Your task to perform on an android device: Is it going to rain tomorrow? Image 0: 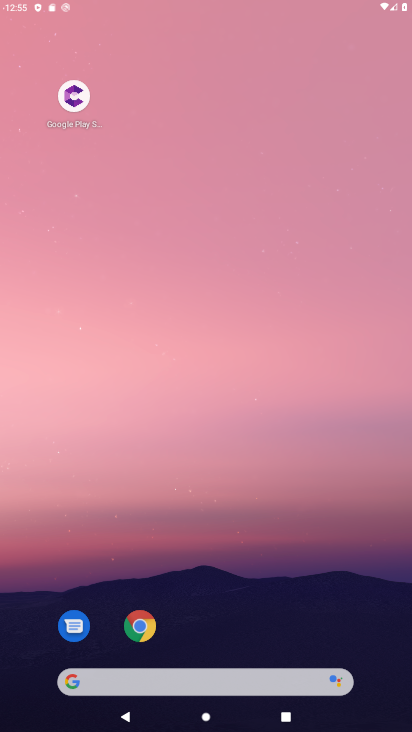
Step 0: press home button
Your task to perform on an android device: Is it going to rain tomorrow? Image 1: 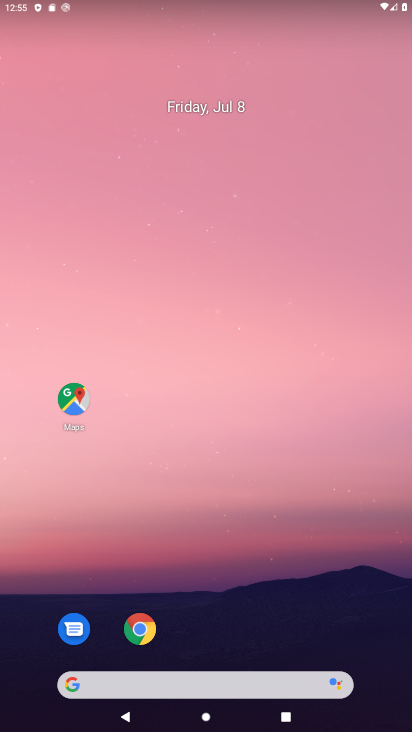
Step 1: click (62, 7)
Your task to perform on an android device: Is it going to rain tomorrow? Image 2: 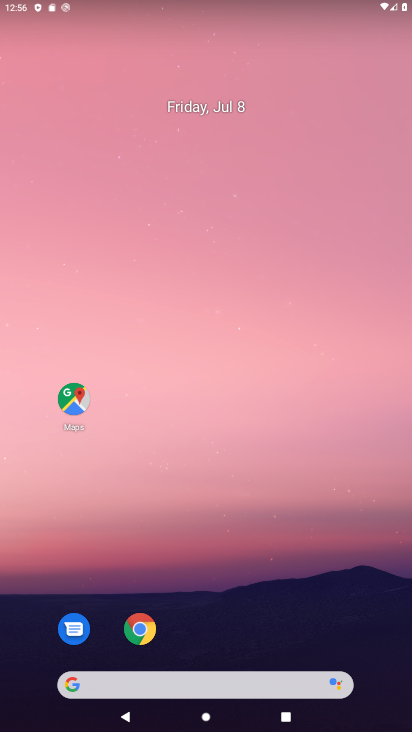
Step 2: click (133, 49)
Your task to perform on an android device: Is it going to rain tomorrow? Image 3: 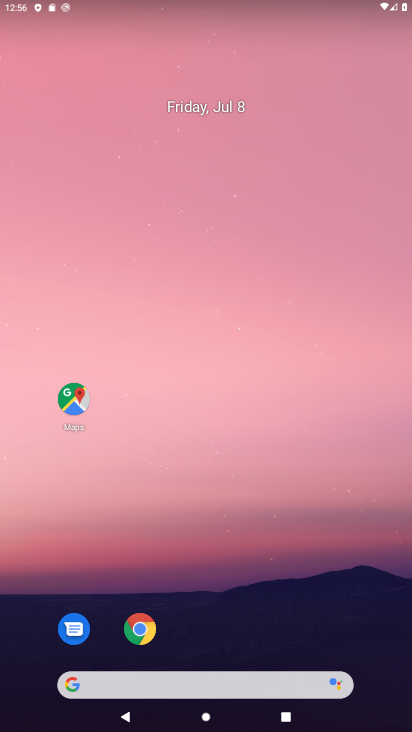
Step 3: drag from (245, 627) to (102, 16)
Your task to perform on an android device: Is it going to rain tomorrow? Image 4: 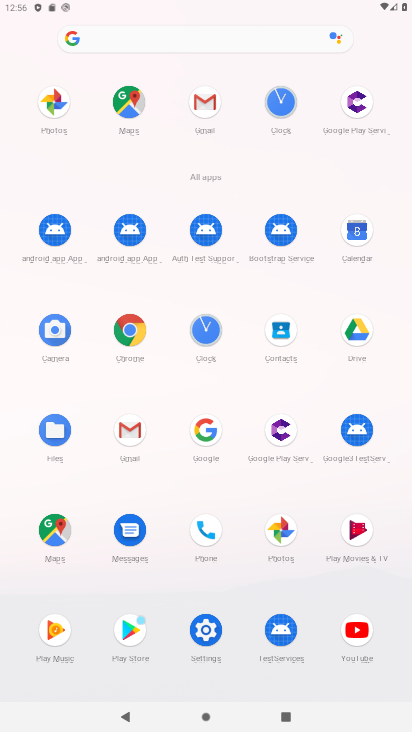
Step 4: drag from (191, 494) to (141, 125)
Your task to perform on an android device: Is it going to rain tomorrow? Image 5: 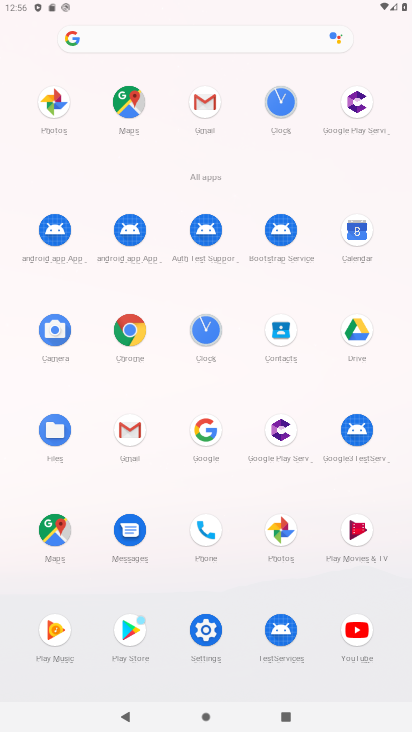
Step 5: drag from (180, 342) to (97, 38)
Your task to perform on an android device: Is it going to rain tomorrow? Image 6: 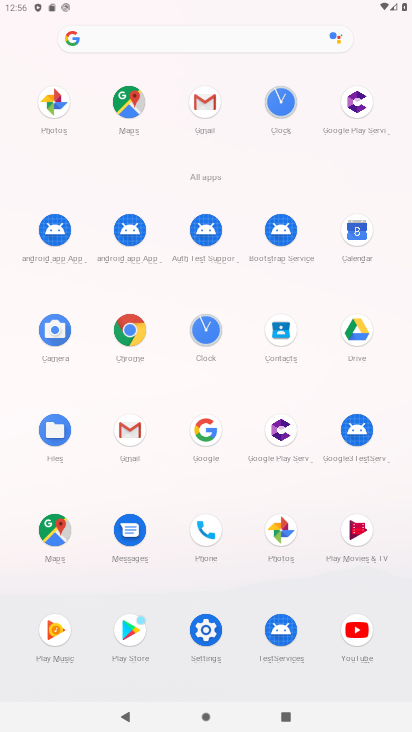
Step 6: drag from (205, 426) to (140, 92)
Your task to perform on an android device: Is it going to rain tomorrow? Image 7: 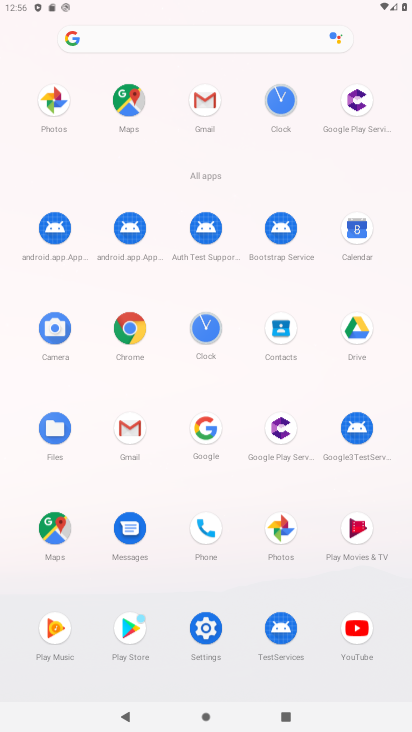
Step 7: drag from (234, 419) to (66, 3)
Your task to perform on an android device: Is it going to rain tomorrow? Image 8: 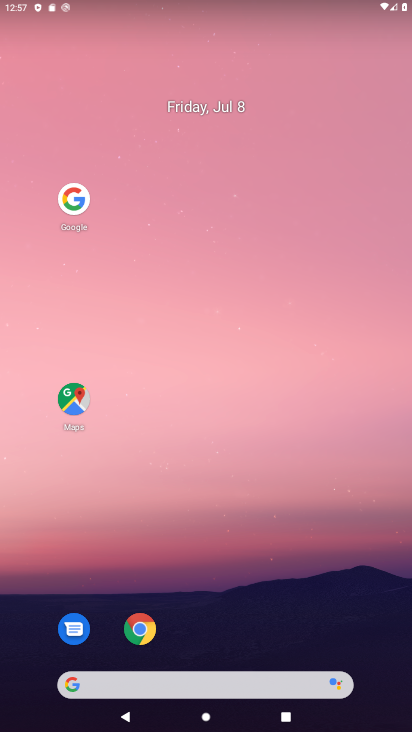
Step 8: click (120, 333)
Your task to perform on an android device: Is it going to rain tomorrow? Image 9: 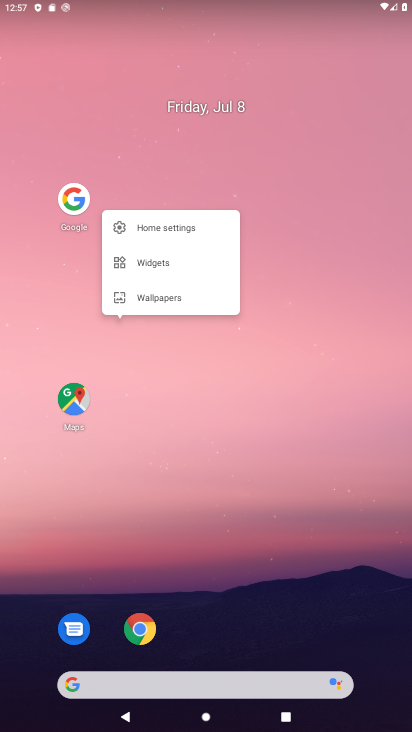
Step 9: click (117, 345)
Your task to perform on an android device: Is it going to rain tomorrow? Image 10: 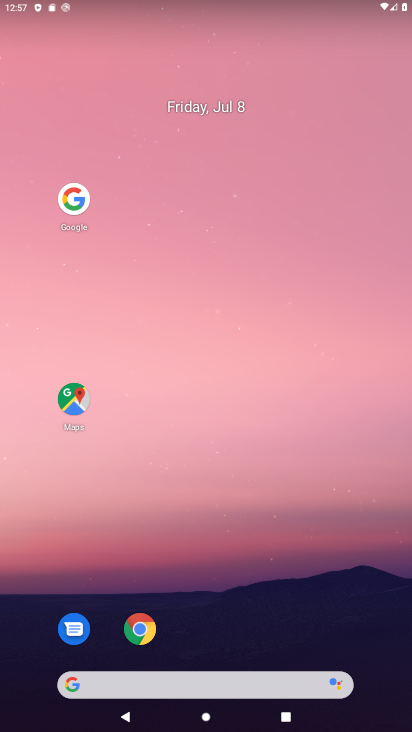
Step 10: click (125, 346)
Your task to perform on an android device: Is it going to rain tomorrow? Image 11: 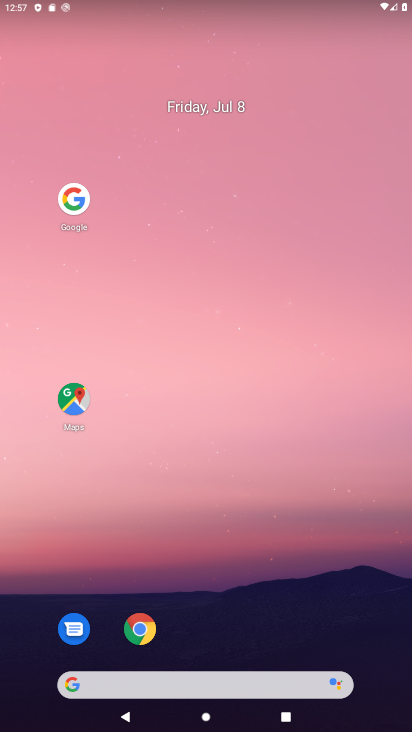
Step 11: click (115, 341)
Your task to perform on an android device: Is it going to rain tomorrow? Image 12: 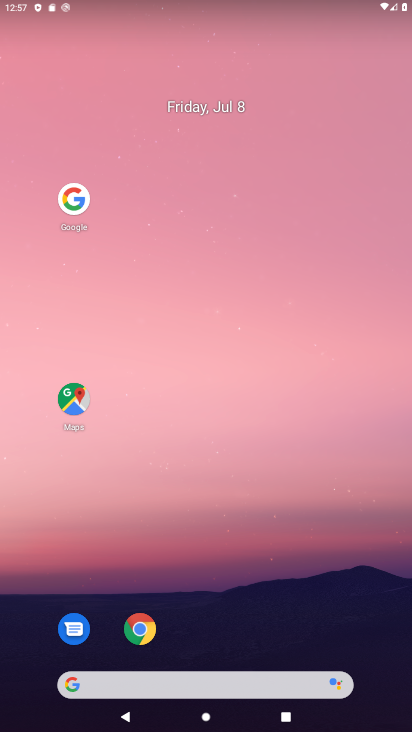
Step 12: click (133, 338)
Your task to perform on an android device: Is it going to rain tomorrow? Image 13: 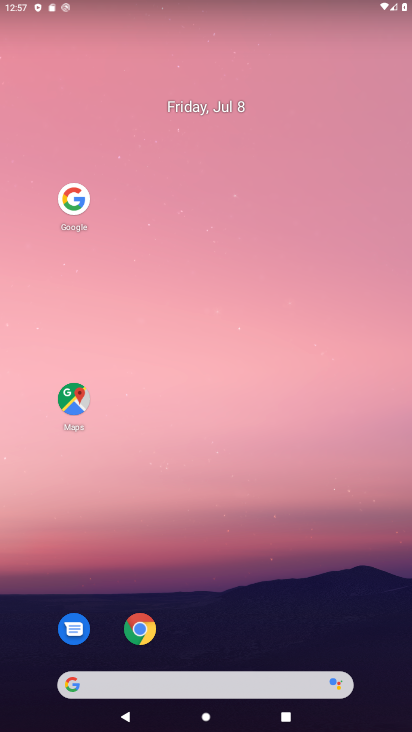
Step 13: drag from (138, 318) to (124, 279)
Your task to perform on an android device: Is it going to rain tomorrow? Image 14: 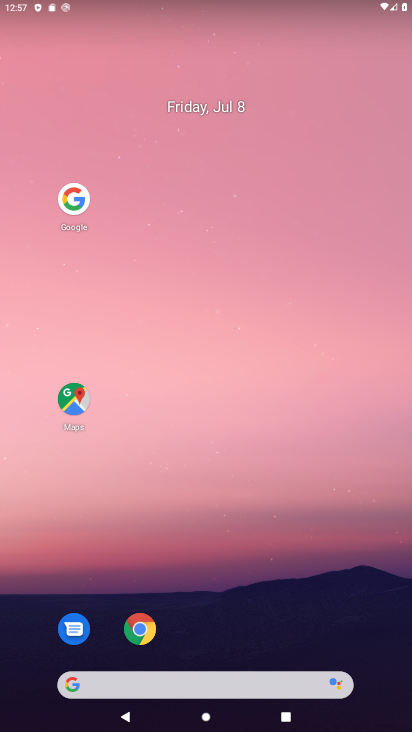
Step 14: click (124, 279)
Your task to perform on an android device: Is it going to rain tomorrow? Image 15: 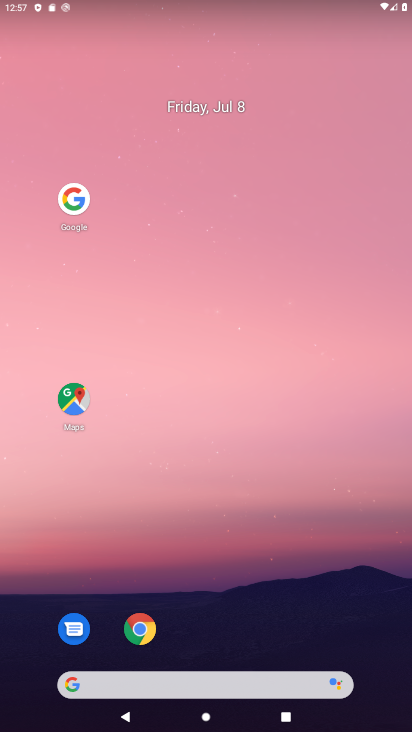
Step 15: task complete